Your task to perform on an android device: Go to wifi settings Image 0: 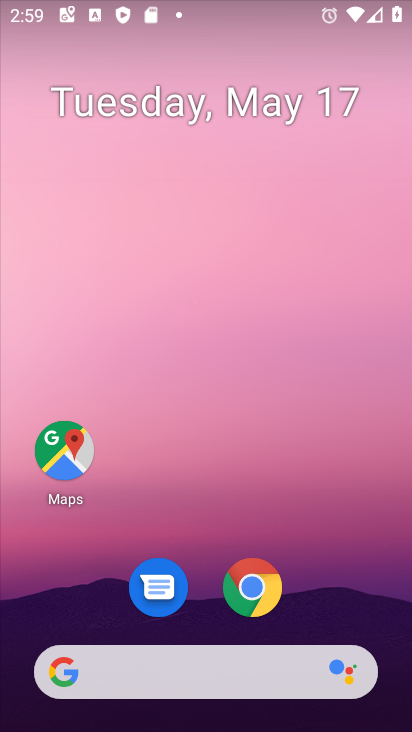
Step 0: drag from (202, 635) to (160, 138)
Your task to perform on an android device: Go to wifi settings Image 1: 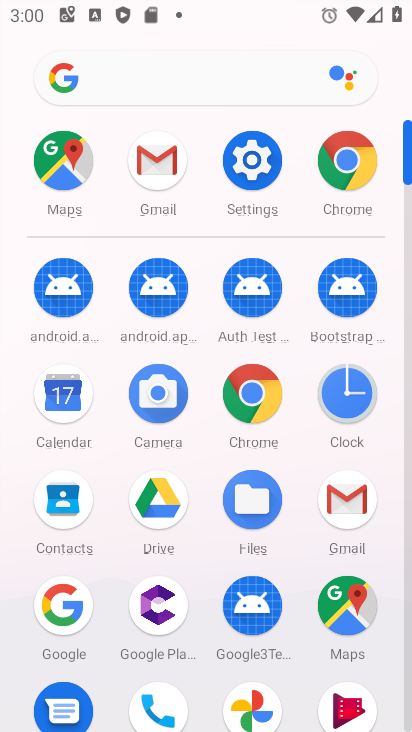
Step 1: click (259, 163)
Your task to perform on an android device: Go to wifi settings Image 2: 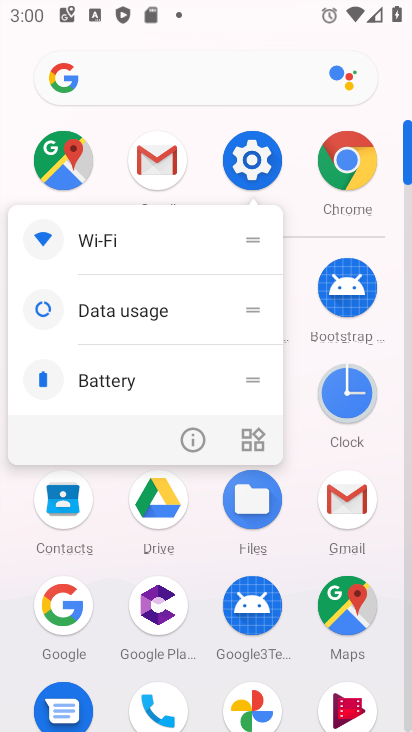
Step 2: click (196, 437)
Your task to perform on an android device: Go to wifi settings Image 3: 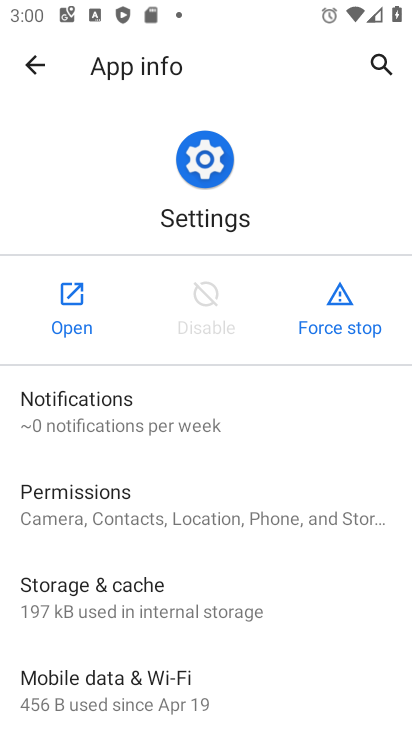
Step 3: click (88, 293)
Your task to perform on an android device: Go to wifi settings Image 4: 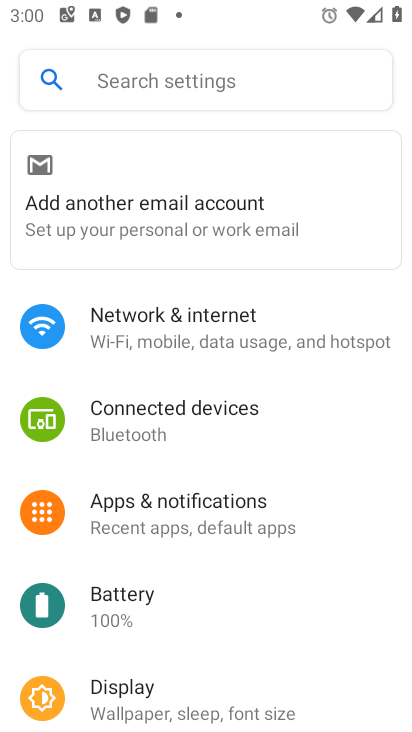
Step 4: click (190, 329)
Your task to perform on an android device: Go to wifi settings Image 5: 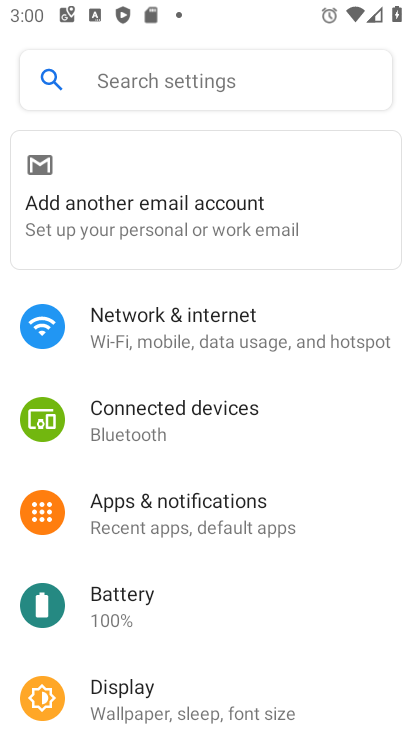
Step 5: click (190, 329)
Your task to perform on an android device: Go to wifi settings Image 6: 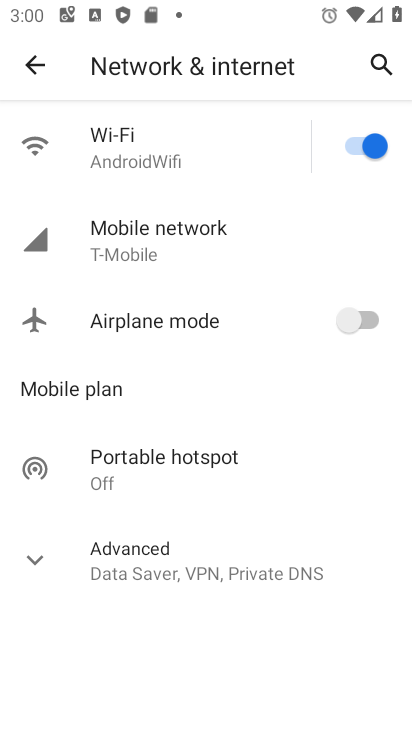
Step 6: click (205, 146)
Your task to perform on an android device: Go to wifi settings Image 7: 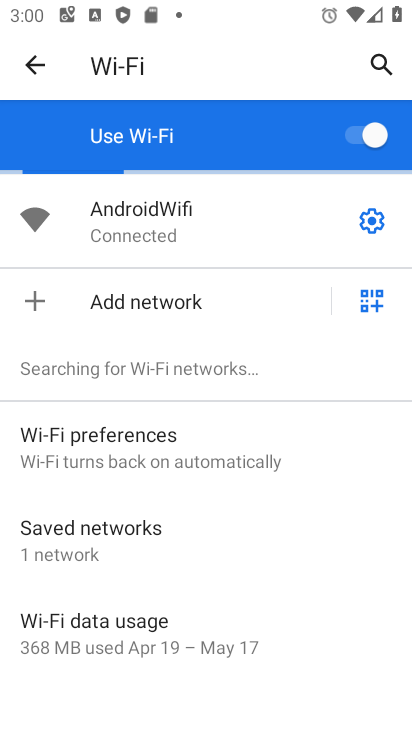
Step 7: drag from (254, 577) to (293, 293)
Your task to perform on an android device: Go to wifi settings Image 8: 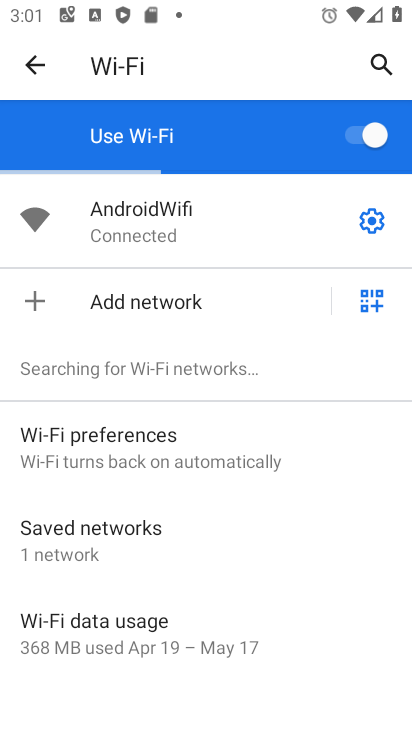
Step 8: drag from (248, 626) to (249, 316)
Your task to perform on an android device: Go to wifi settings Image 9: 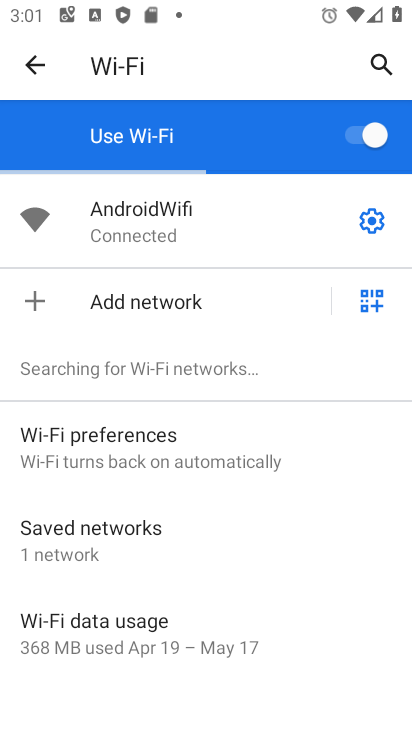
Step 9: click (376, 218)
Your task to perform on an android device: Go to wifi settings Image 10: 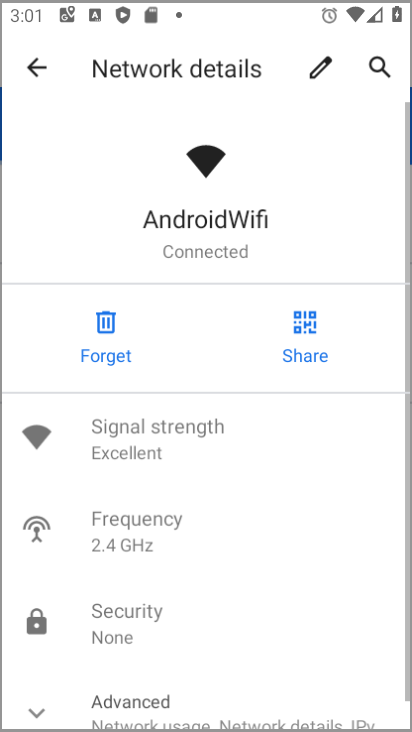
Step 10: task complete